Your task to perform on an android device: Show me productivity apps on the Play Store Image 0: 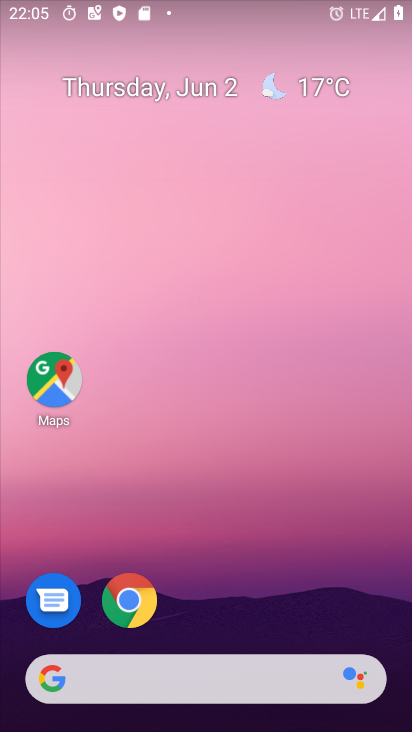
Step 0: drag from (339, 635) to (356, 195)
Your task to perform on an android device: Show me productivity apps on the Play Store Image 1: 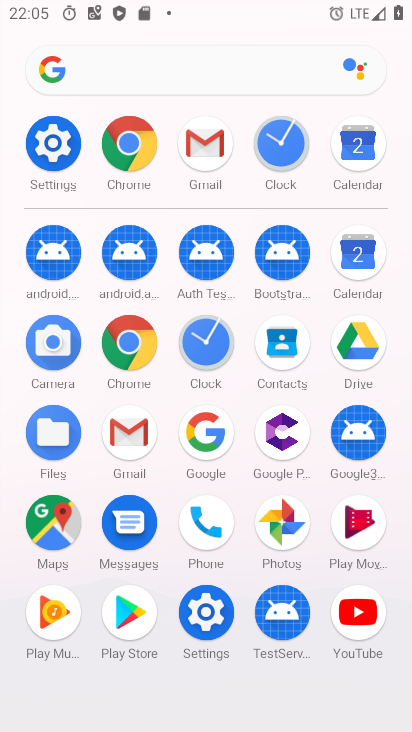
Step 1: click (133, 612)
Your task to perform on an android device: Show me productivity apps on the Play Store Image 2: 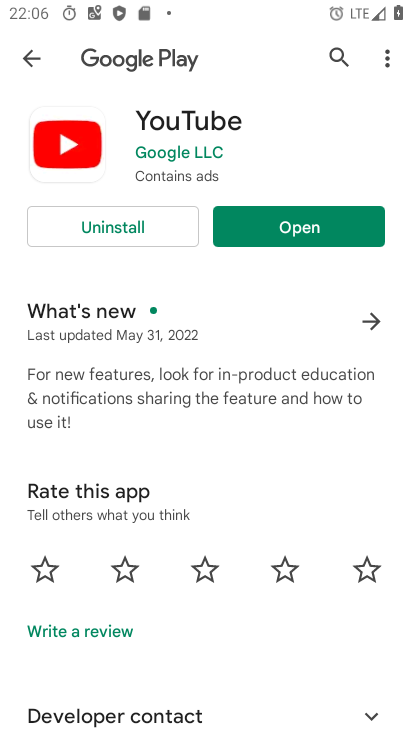
Step 2: press back button
Your task to perform on an android device: Show me productivity apps on the Play Store Image 3: 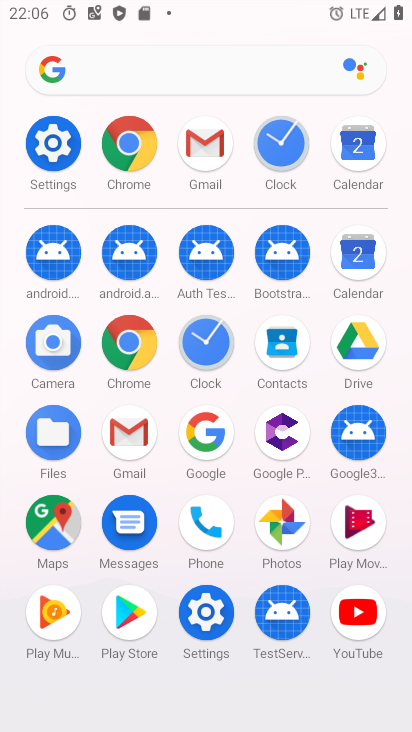
Step 3: click (126, 609)
Your task to perform on an android device: Show me productivity apps on the Play Store Image 4: 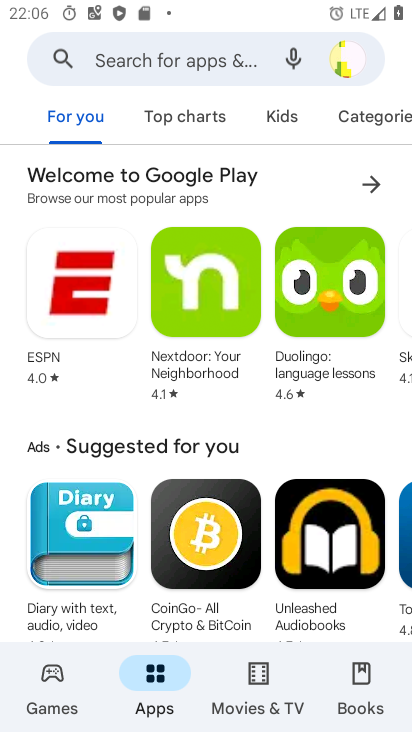
Step 4: task complete